Your task to perform on an android device: Open Wikipedia Image 0: 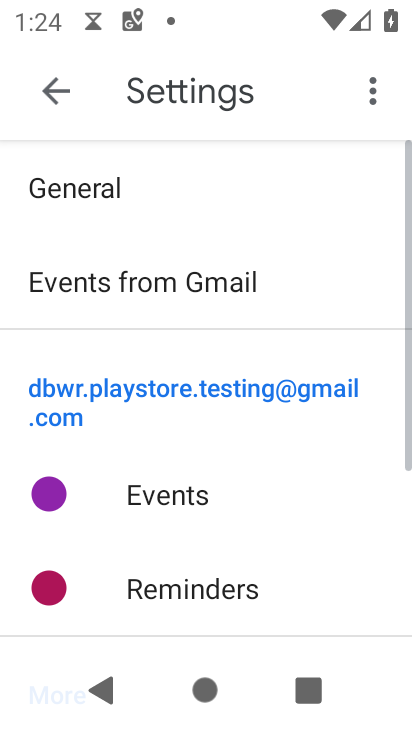
Step 0: drag from (319, 514) to (401, 333)
Your task to perform on an android device: Open Wikipedia Image 1: 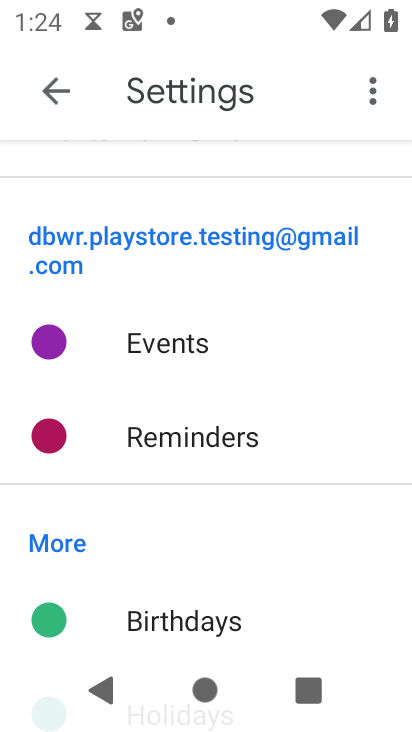
Step 1: press home button
Your task to perform on an android device: Open Wikipedia Image 2: 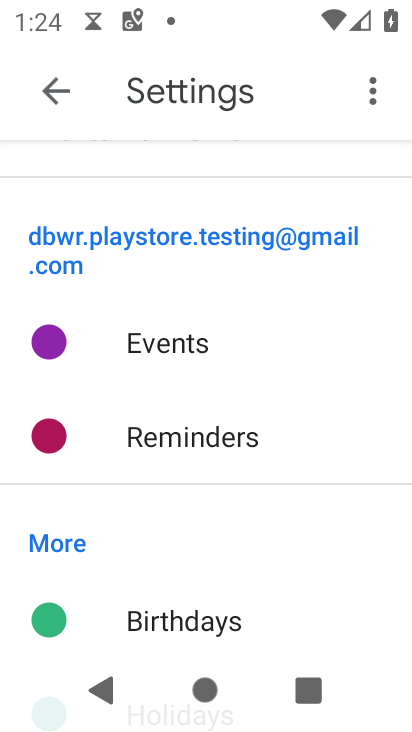
Step 2: click (401, 333)
Your task to perform on an android device: Open Wikipedia Image 3: 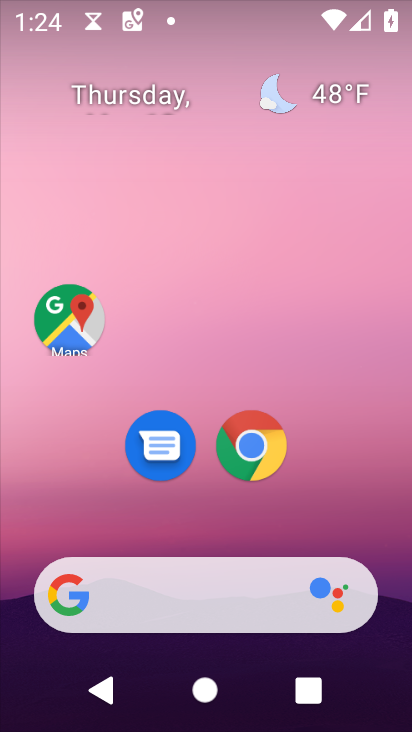
Step 3: click (253, 447)
Your task to perform on an android device: Open Wikipedia Image 4: 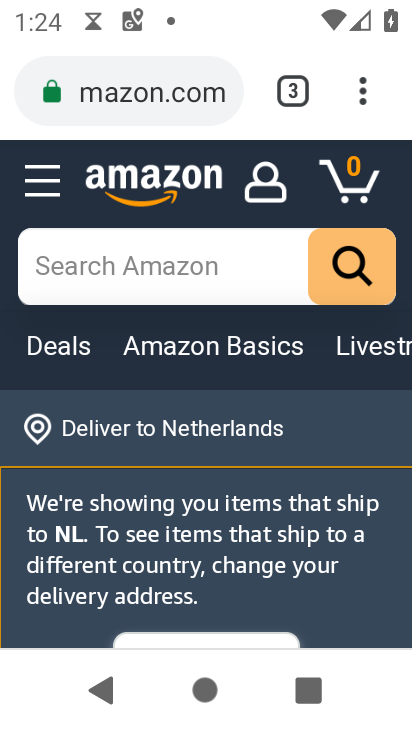
Step 4: click (302, 95)
Your task to perform on an android device: Open Wikipedia Image 5: 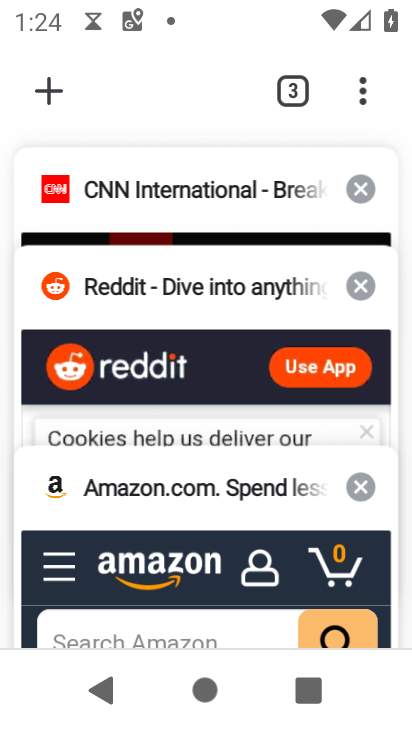
Step 5: click (57, 92)
Your task to perform on an android device: Open Wikipedia Image 6: 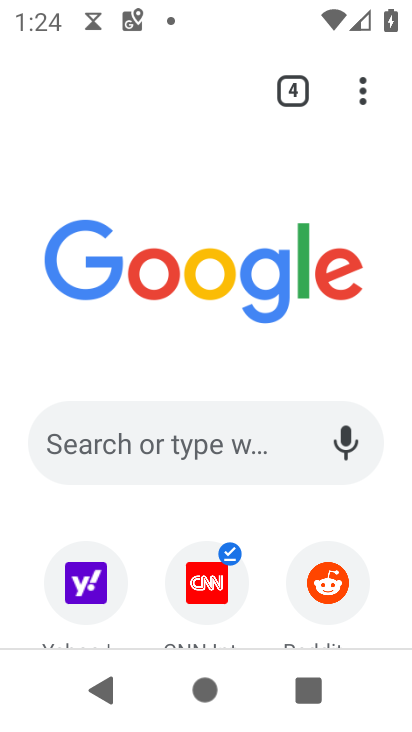
Step 6: drag from (213, 444) to (261, 119)
Your task to perform on an android device: Open Wikipedia Image 7: 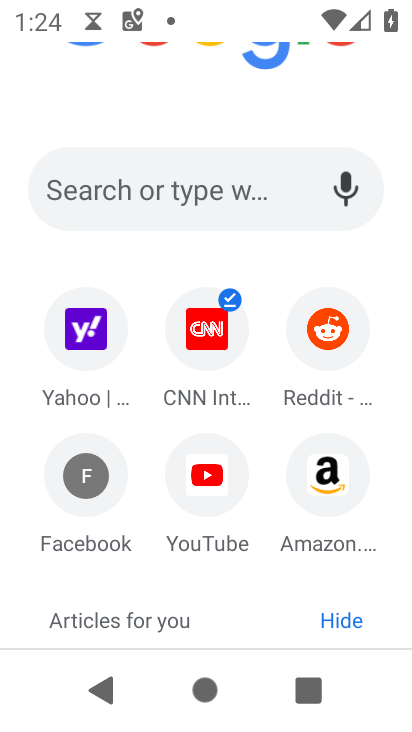
Step 7: click (199, 185)
Your task to perform on an android device: Open Wikipedia Image 8: 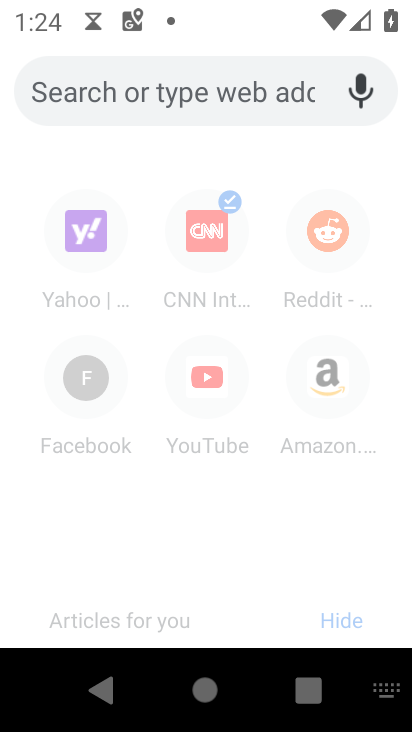
Step 8: type "wikipedia"
Your task to perform on an android device: Open Wikipedia Image 9: 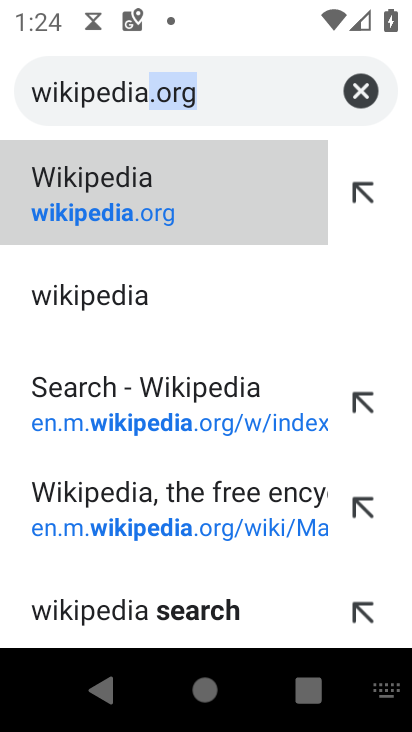
Step 9: click (85, 216)
Your task to perform on an android device: Open Wikipedia Image 10: 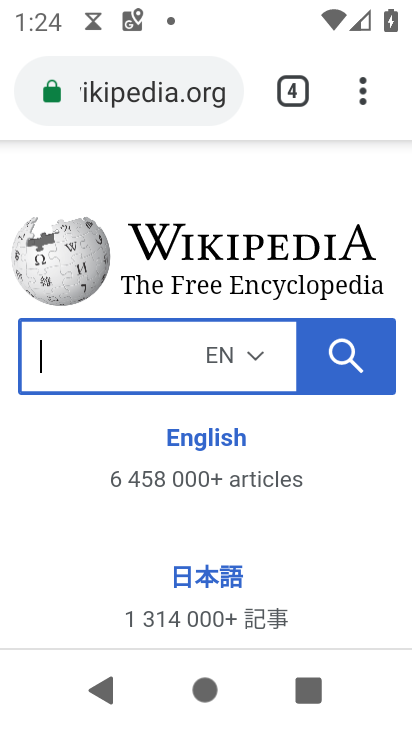
Step 10: task complete